Your task to perform on an android device: allow notifications from all sites in the chrome app Image 0: 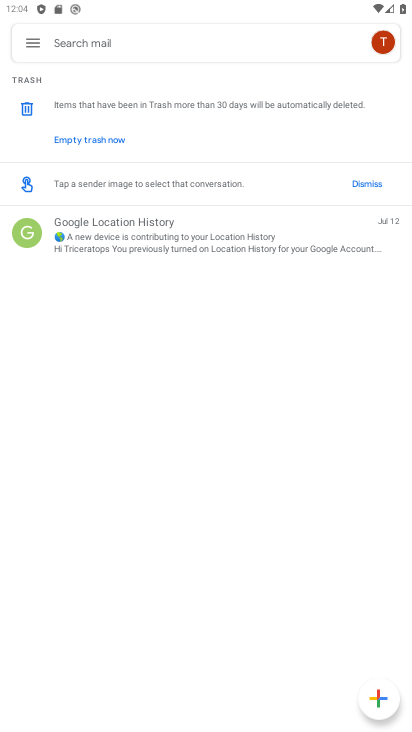
Step 0: press home button
Your task to perform on an android device: allow notifications from all sites in the chrome app Image 1: 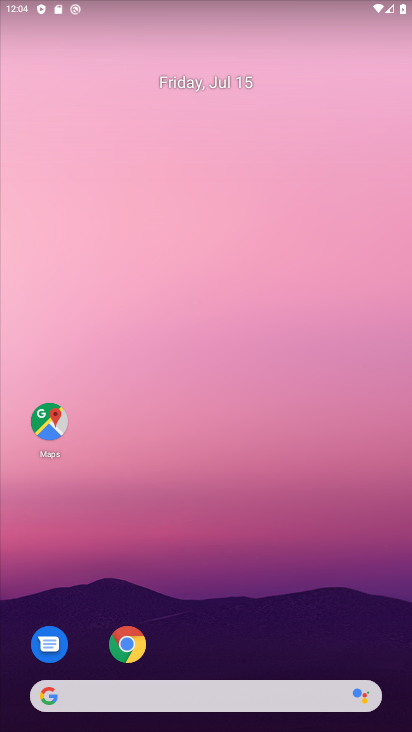
Step 1: drag from (223, 705) to (199, 93)
Your task to perform on an android device: allow notifications from all sites in the chrome app Image 2: 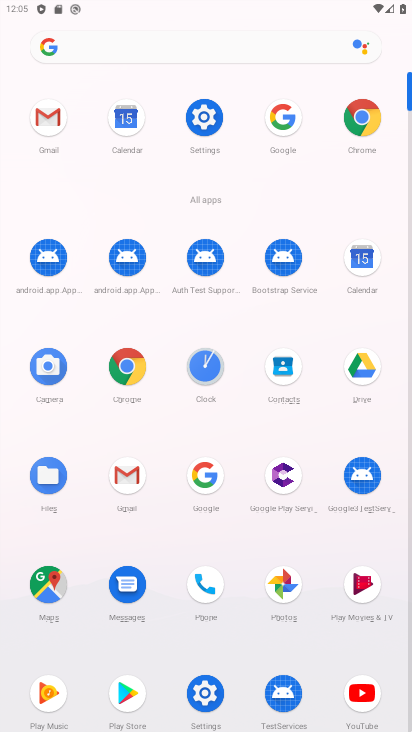
Step 2: click (359, 115)
Your task to perform on an android device: allow notifications from all sites in the chrome app Image 3: 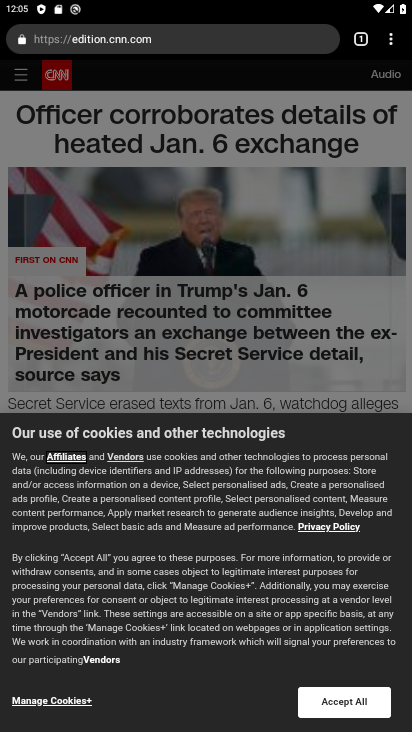
Step 3: click (392, 43)
Your task to perform on an android device: allow notifications from all sites in the chrome app Image 4: 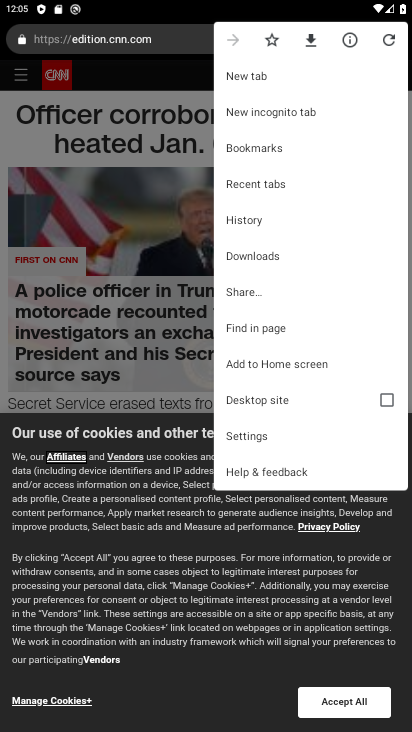
Step 4: click (227, 433)
Your task to perform on an android device: allow notifications from all sites in the chrome app Image 5: 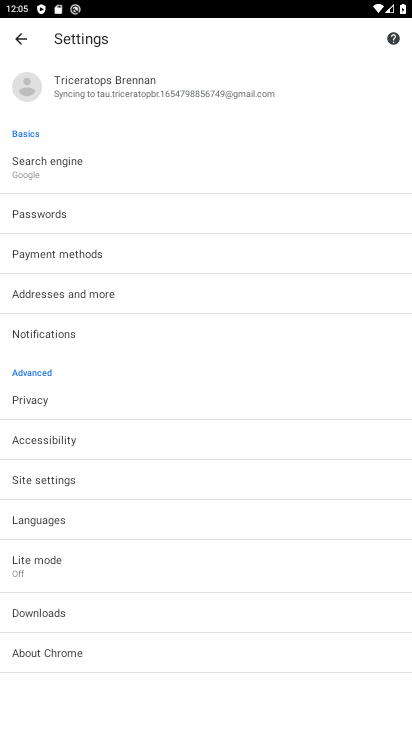
Step 5: click (47, 477)
Your task to perform on an android device: allow notifications from all sites in the chrome app Image 6: 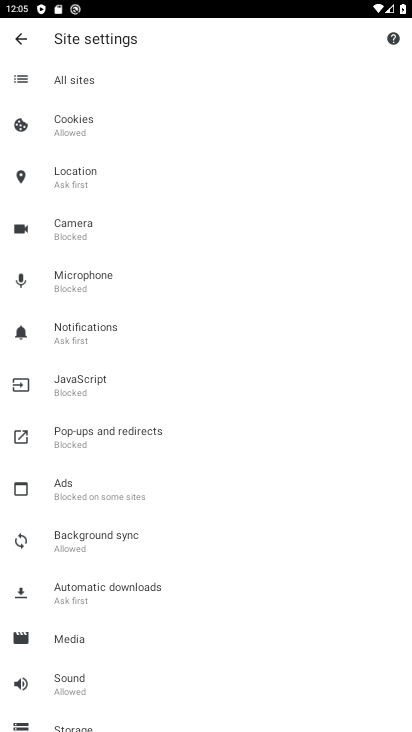
Step 6: click (90, 329)
Your task to perform on an android device: allow notifications from all sites in the chrome app Image 7: 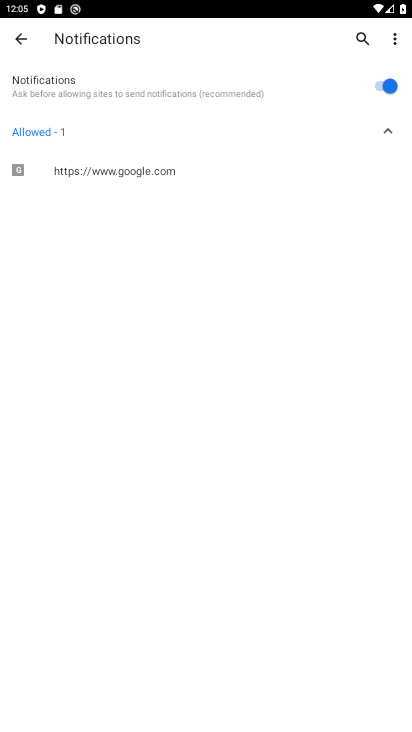
Step 7: task complete